Your task to perform on an android device: set an alarm Image 0: 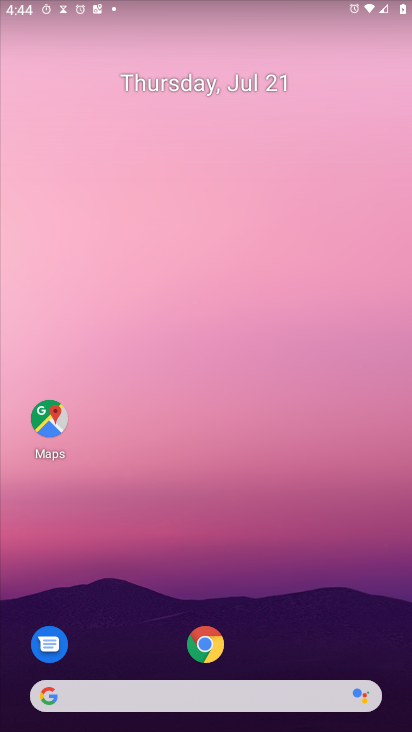
Step 0: press home button
Your task to perform on an android device: set an alarm Image 1: 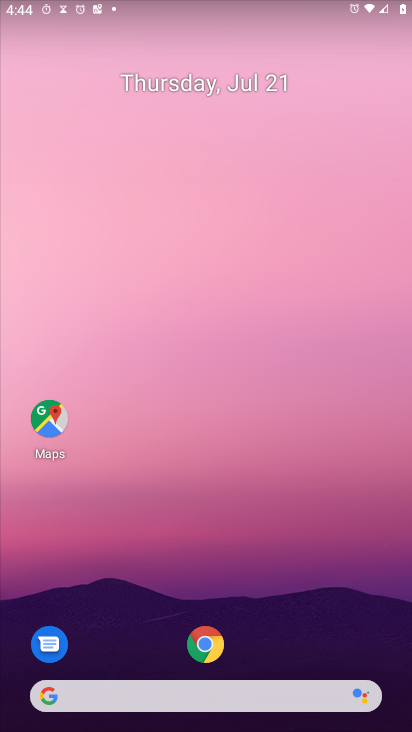
Step 1: drag from (293, 627) to (257, 55)
Your task to perform on an android device: set an alarm Image 2: 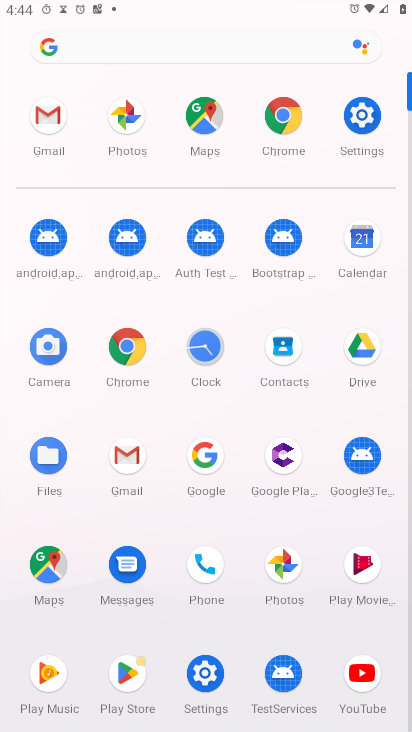
Step 2: click (201, 356)
Your task to perform on an android device: set an alarm Image 3: 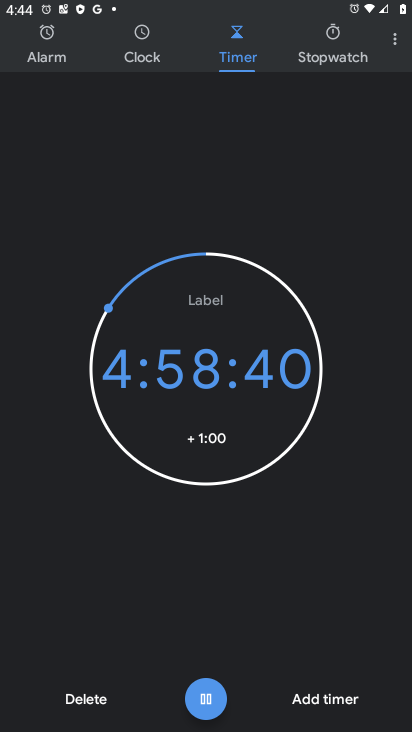
Step 3: click (47, 38)
Your task to perform on an android device: set an alarm Image 4: 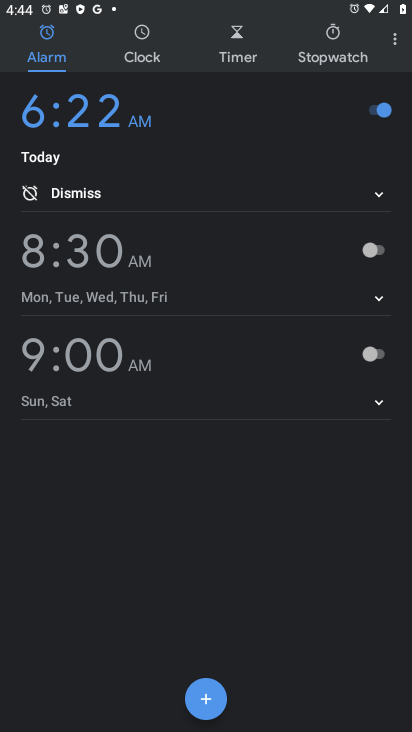
Step 4: click (363, 250)
Your task to perform on an android device: set an alarm Image 5: 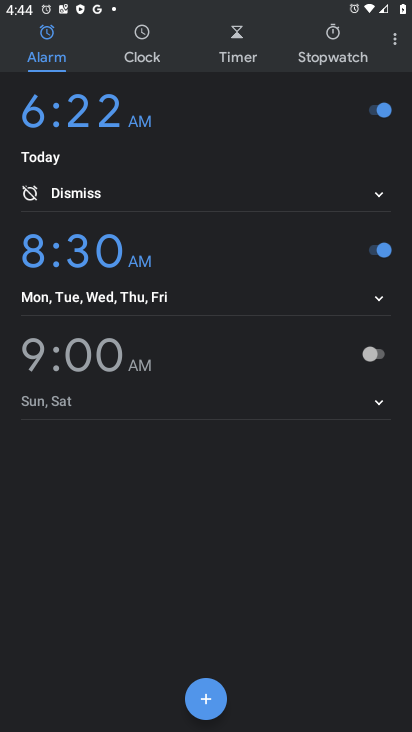
Step 5: task complete